Your task to perform on an android device: turn off improve location accuracy Image 0: 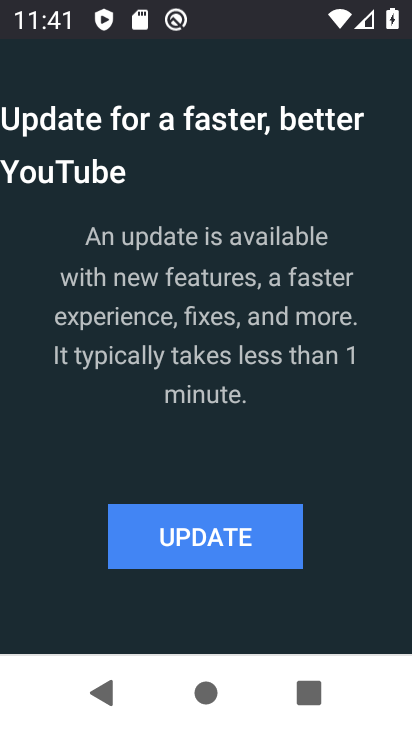
Step 0: press home button
Your task to perform on an android device: turn off improve location accuracy Image 1: 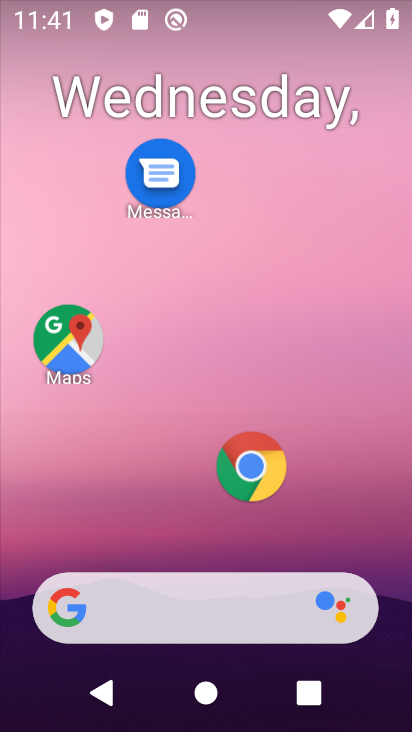
Step 1: drag from (207, 423) to (220, 172)
Your task to perform on an android device: turn off improve location accuracy Image 2: 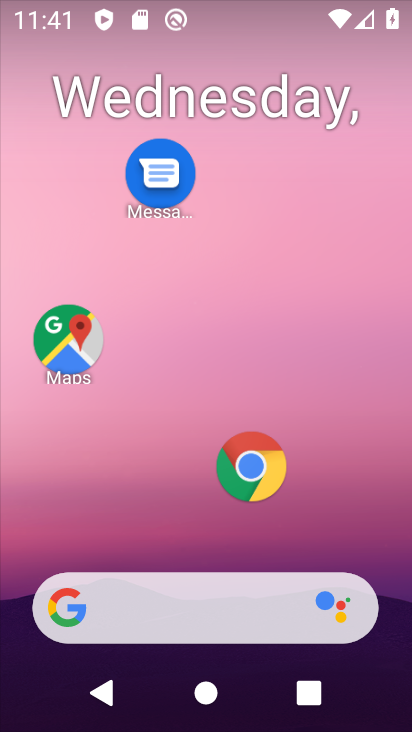
Step 2: drag from (198, 541) to (213, 62)
Your task to perform on an android device: turn off improve location accuracy Image 3: 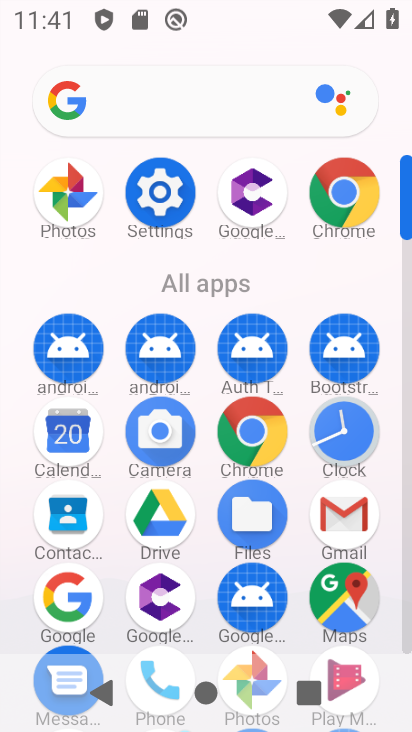
Step 3: click (174, 188)
Your task to perform on an android device: turn off improve location accuracy Image 4: 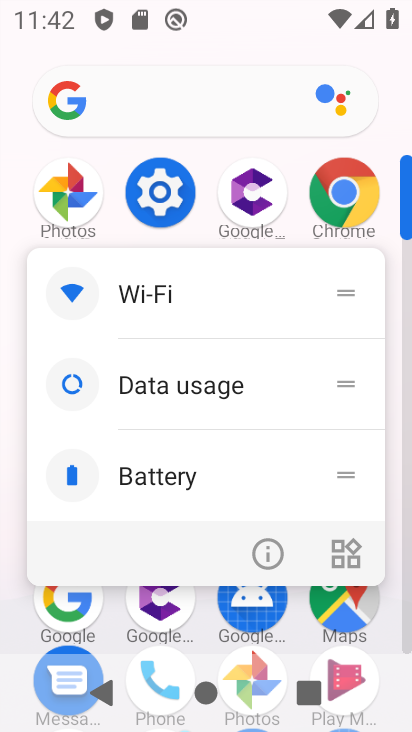
Step 4: click (10, 68)
Your task to perform on an android device: turn off improve location accuracy Image 5: 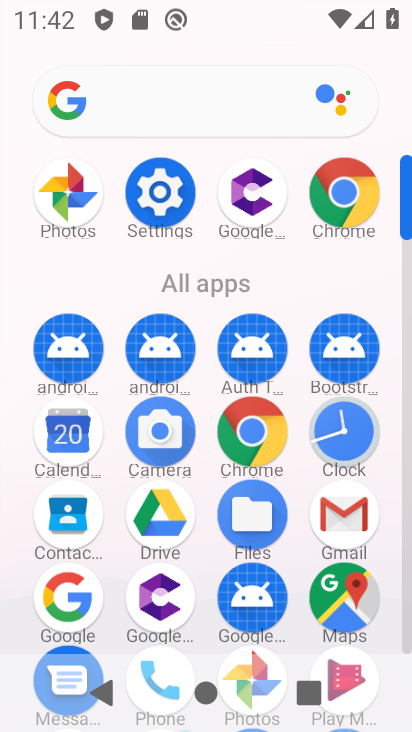
Step 5: click (177, 185)
Your task to perform on an android device: turn off improve location accuracy Image 6: 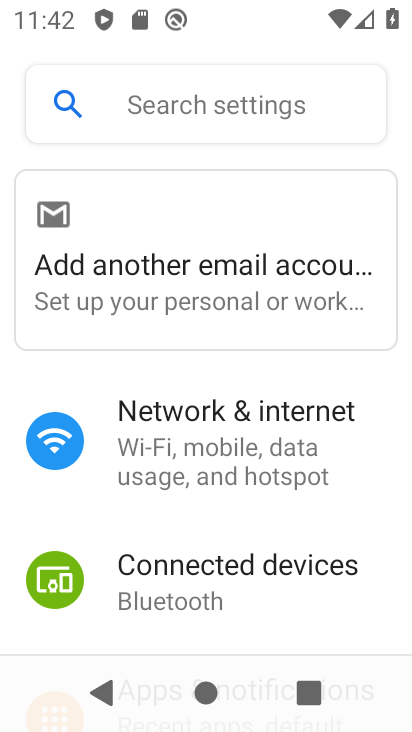
Step 6: drag from (241, 587) to (244, 300)
Your task to perform on an android device: turn off improve location accuracy Image 7: 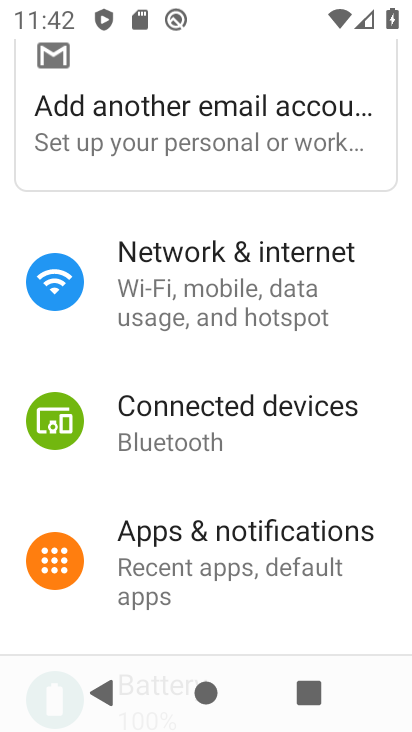
Step 7: drag from (259, 588) to (256, 257)
Your task to perform on an android device: turn off improve location accuracy Image 8: 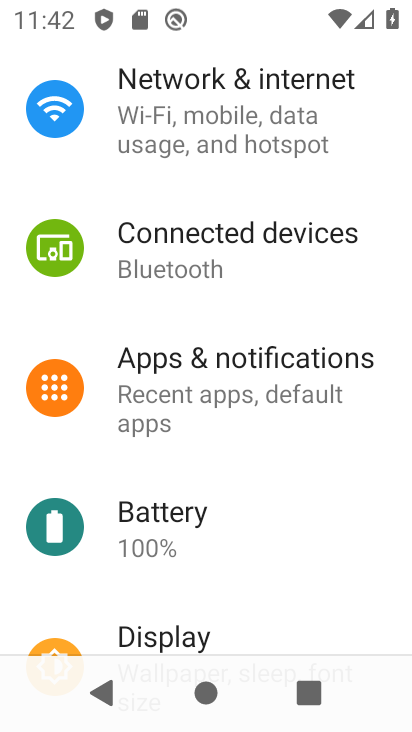
Step 8: drag from (253, 509) to (253, 193)
Your task to perform on an android device: turn off improve location accuracy Image 9: 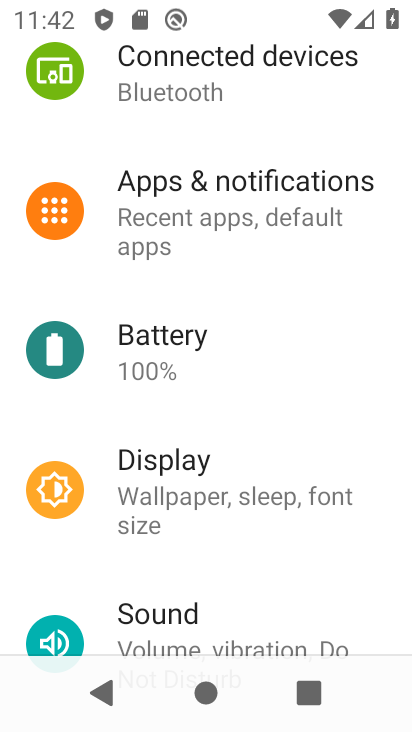
Step 9: drag from (269, 549) to (249, 193)
Your task to perform on an android device: turn off improve location accuracy Image 10: 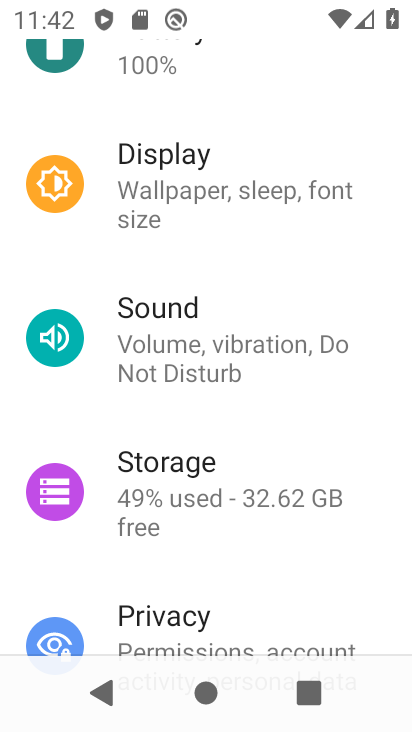
Step 10: drag from (233, 512) to (250, 247)
Your task to perform on an android device: turn off improve location accuracy Image 11: 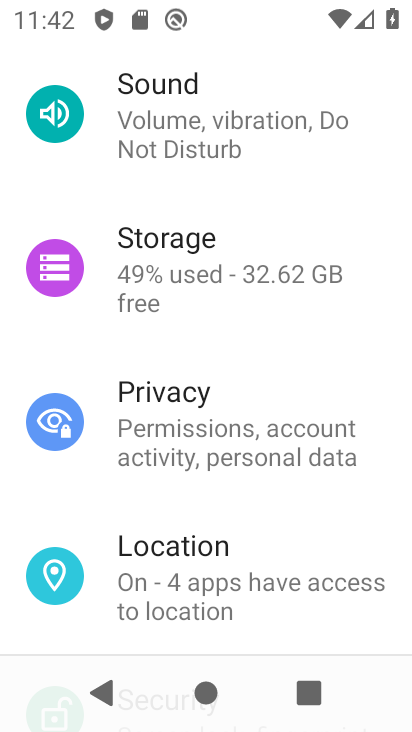
Step 11: click (252, 562)
Your task to perform on an android device: turn off improve location accuracy Image 12: 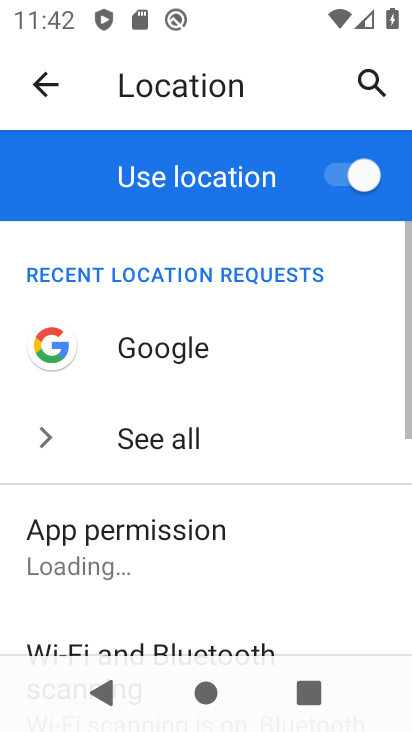
Step 12: drag from (263, 567) to (249, 252)
Your task to perform on an android device: turn off improve location accuracy Image 13: 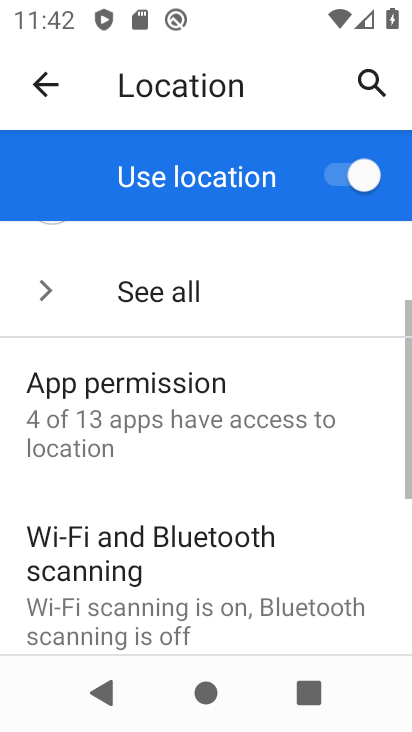
Step 13: drag from (261, 543) to (255, 275)
Your task to perform on an android device: turn off improve location accuracy Image 14: 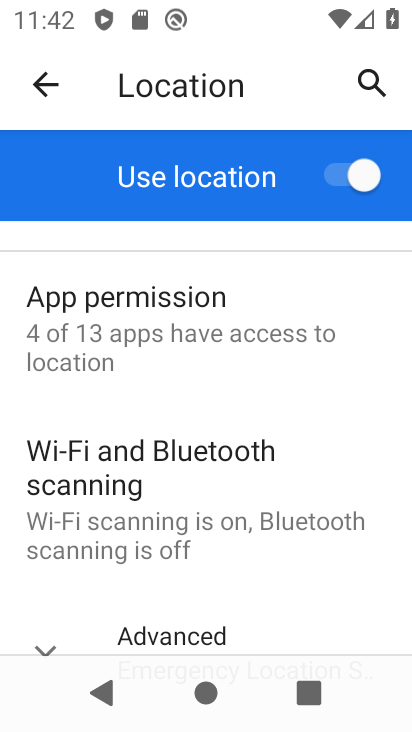
Step 14: drag from (254, 568) to (247, 306)
Your task to perform on an android device: turn off improve location accuracy Image 15: 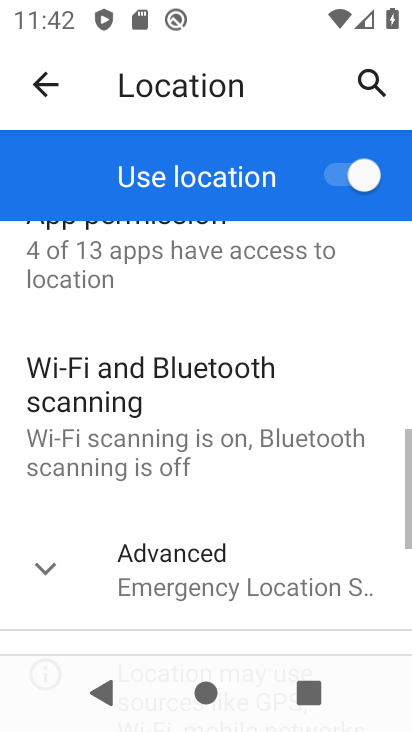
Step 15: drag from (254, 615) to (264, 339)
Your task to perform on an android device: turn off improve location accuracy Image 16: 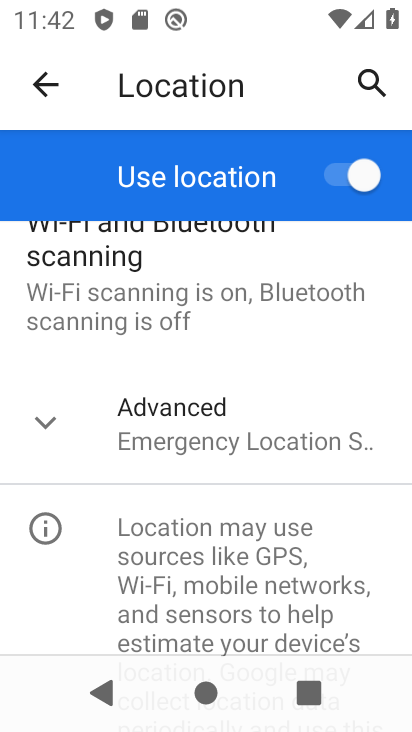
Step 16: click (218, 409)
Your task to perform on an android device: turn off improve location accuracy Image 17: 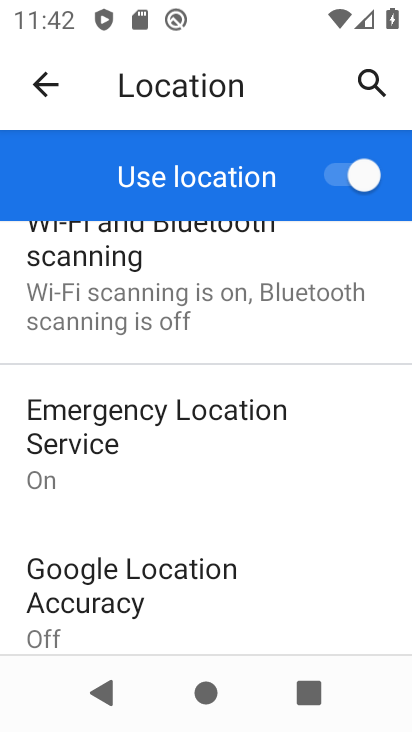
Step 17: drag from (202, 598) to (202, 473)
Your task to perform on an android device: turn off improve location accuracy Image 18: 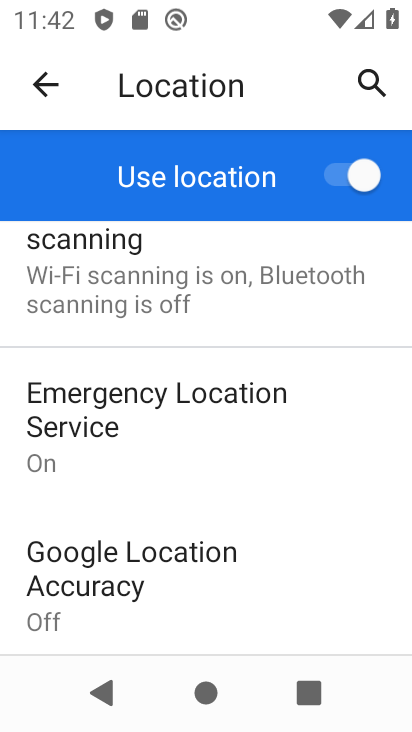
Step 18: click (170, 555)
Your task to perform on an android device: turn off improve location accuracy Image 19: 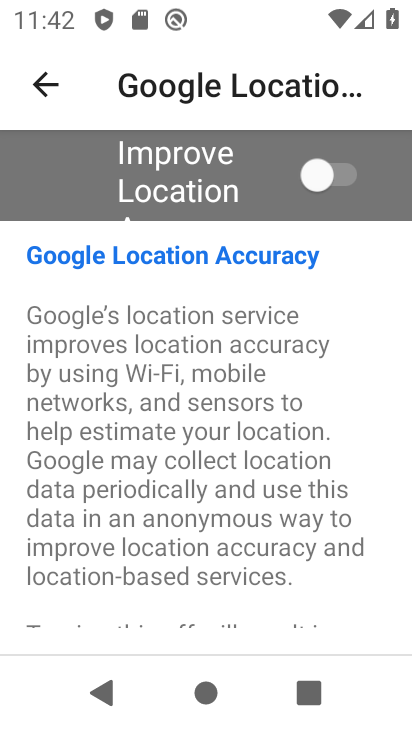
Step 19: task complete